Your task to perform on an android device: turn notification dots on Image 0: 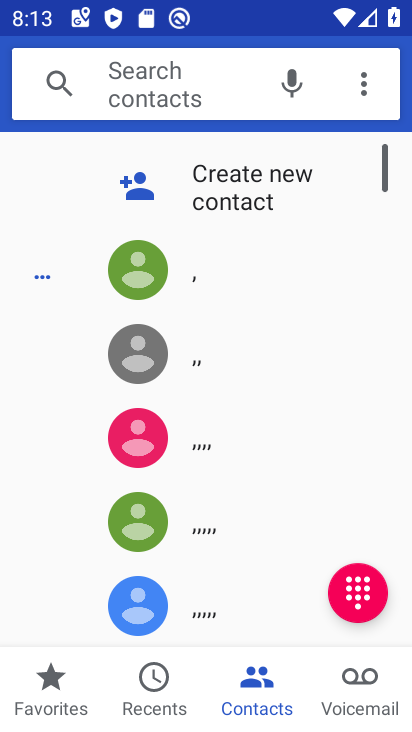
Step 0: press home button
Your task to perform on an android device: turn notification dots on Image 1: 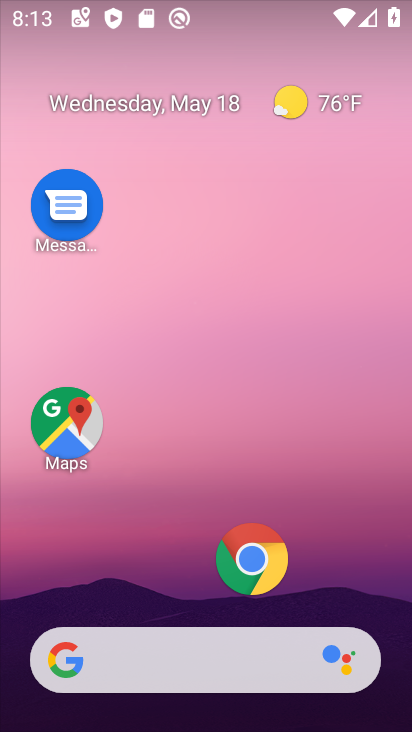
Step 1: drag from (232, 609) to (379, 3)
Your task to perform on an android device: turn notification dots on Image 2: 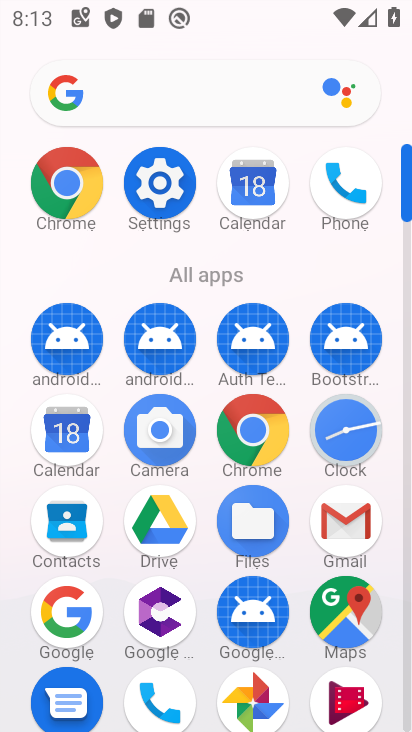
Step 2: click (178, 183)
Your task to perform on an android device: turn notification dots on Image 3: 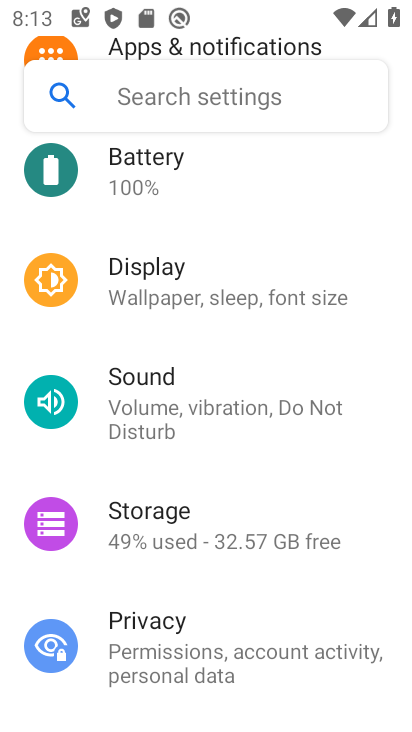
Step 3: drag from (229, 549) to (199, 668)
Your task to perform on an android device: turn notification dots on Image 4: 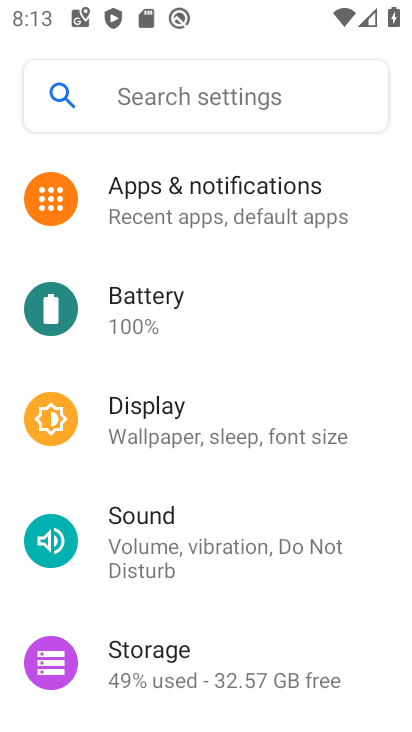
Step 4: click (224, 244)
Your task to perform on an android device: turn notification dots on Image 5: 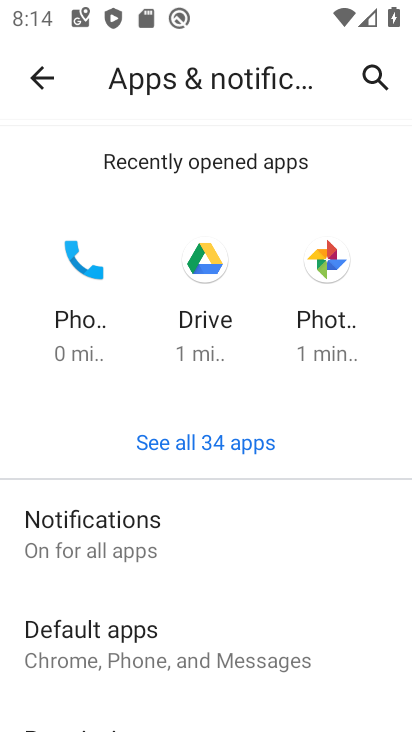
Step 5: click (153, 501)
Your task to perform on an android device: turn notification dots on Image 6: 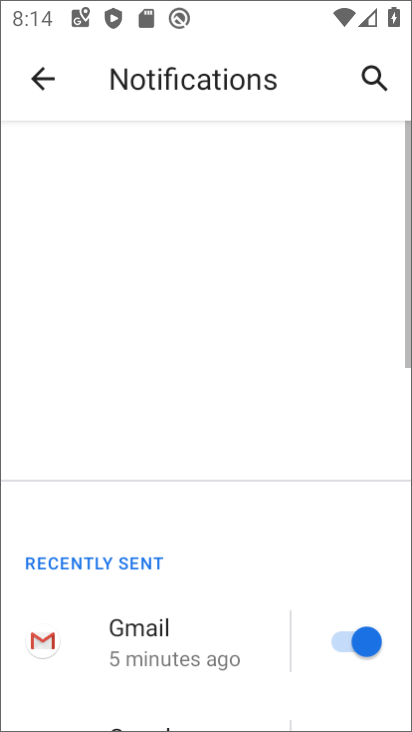
Step 6: drag from (153, 502) to (160, 11)
Your task to perform on an android device: turn notification dots on Image 7: 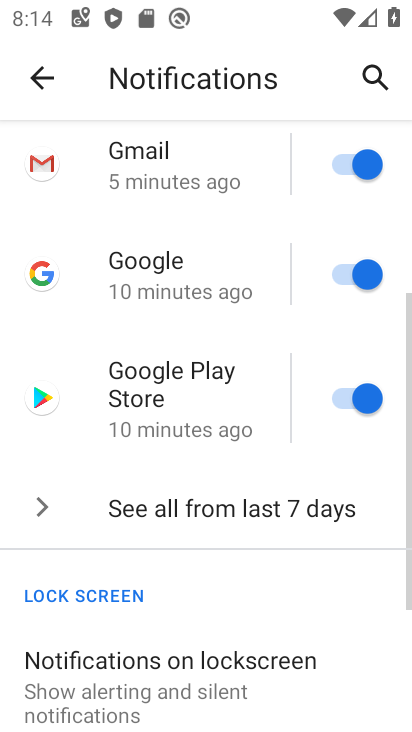
Step 7: drag from (301, 613) to (229, 95)
Your task to perform on an android device: turn notification dots on Image 8: 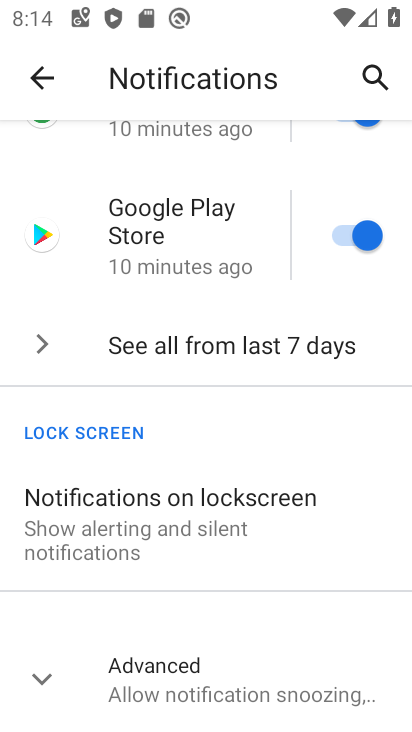
Step 8: click (283, 680)
Your task to perform on an android device: turn notification dots on Image 9: 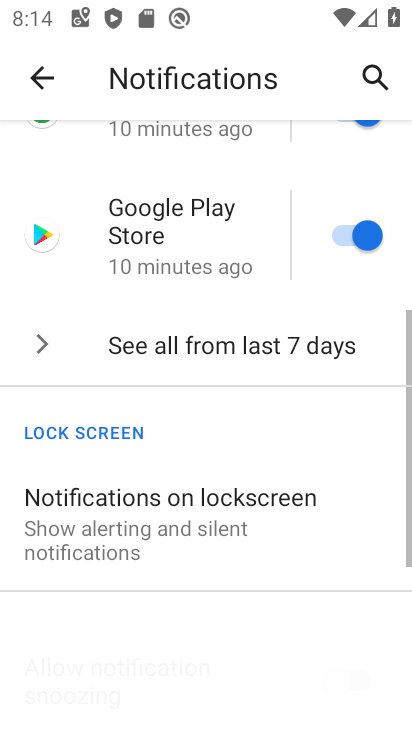
Step 9: task complete